Your task to perform on an android device: Search for pizza restaurants on Maps Image 0: 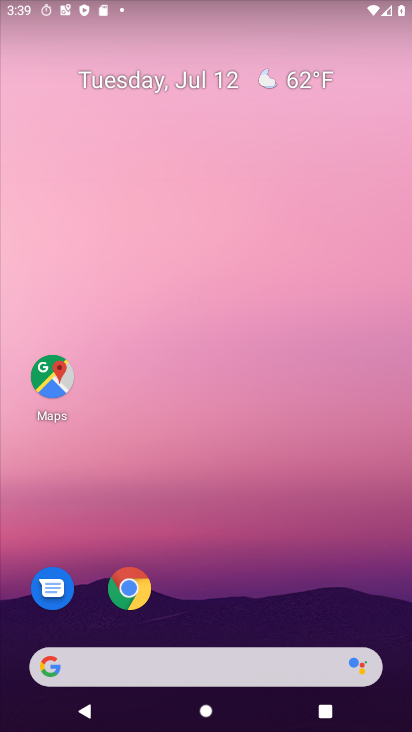
Step 0: click (54, 381)
Your task to perform on an android device: Search for pizza restaurants on Maps Image 1: 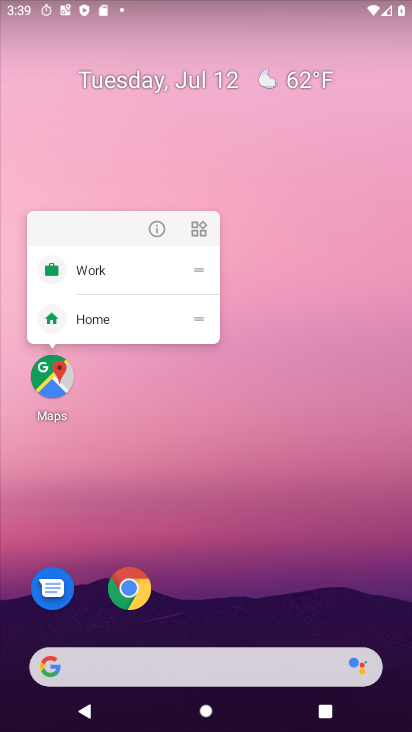
Step 1: click (58, 392)
Your task to perform on an android device: Search for pizza restaurants on Maps Image 2: 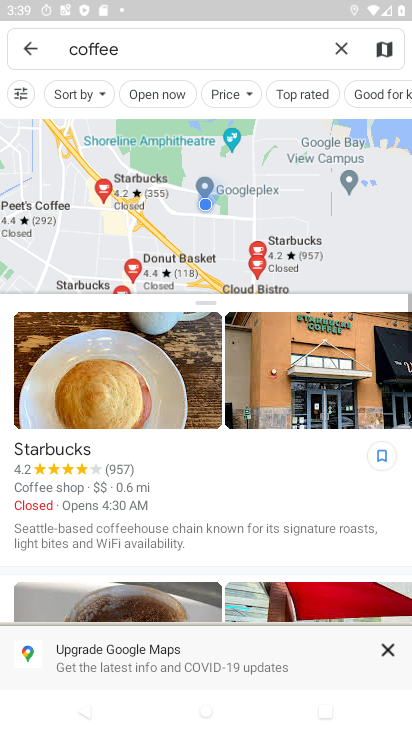
Step 2: click (339, 49)
Your task to perform on an android device: Search for pizza restaurants on Maps Image 3: 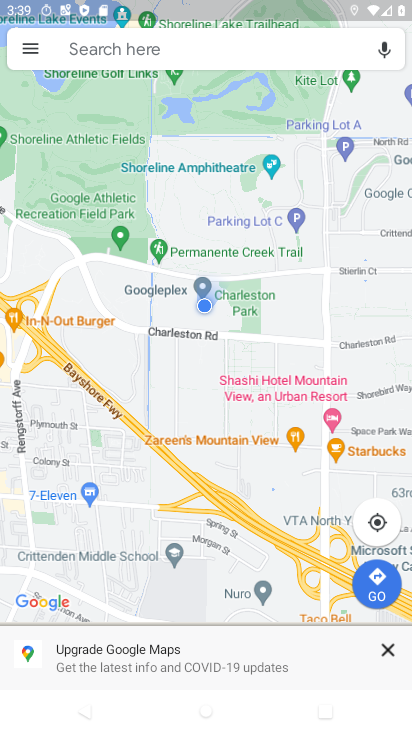
Step 3: click (250, 35)
Your task to perform on an android device: Search for pizza restaurants on Maps Image 4: 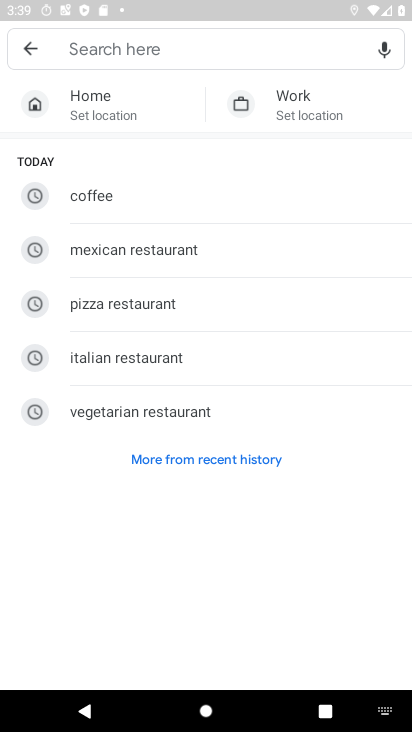
Step 4: type "pizza restaurants"
Your task to perform on an android device: Search for pizza restaurants on Maps Image 5: 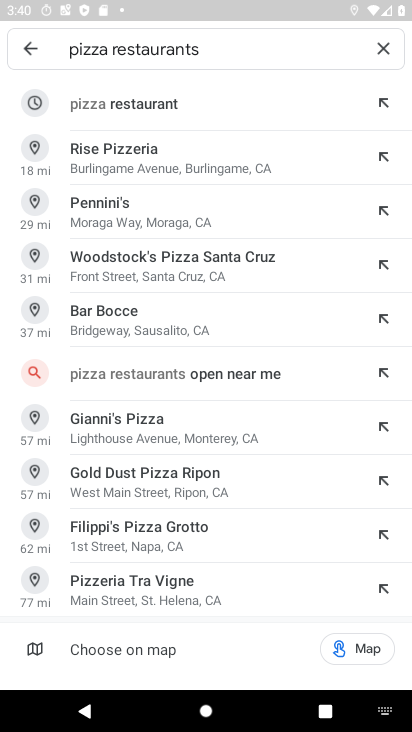
Step 5: click (113, 114)
Your task to perform on an android device: Search for pizza restaurants on Maps Image 6: 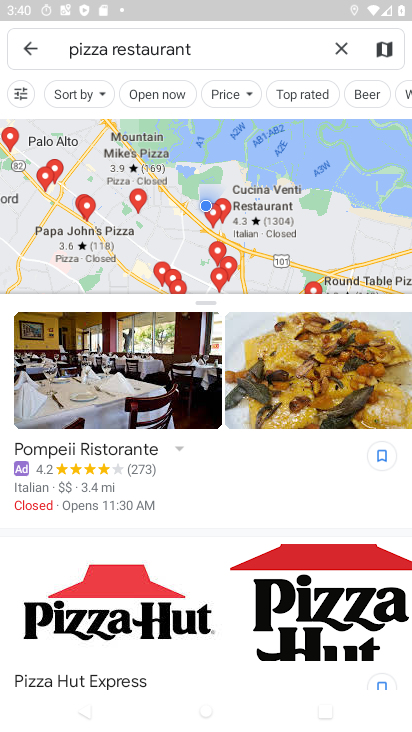
Step 6: task complete